Your task to perform on an android device: Open Youtube and go to "Your channel" Image 0: 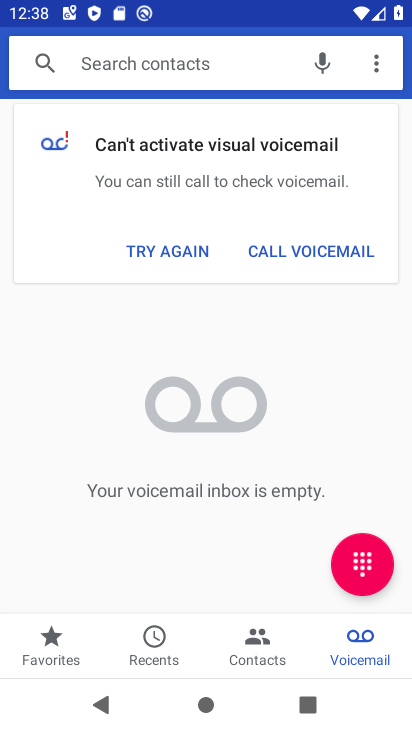
Step 0: press home button
Your task to perform on an android device: Open Youtube and go to "Your channel" Image 1: 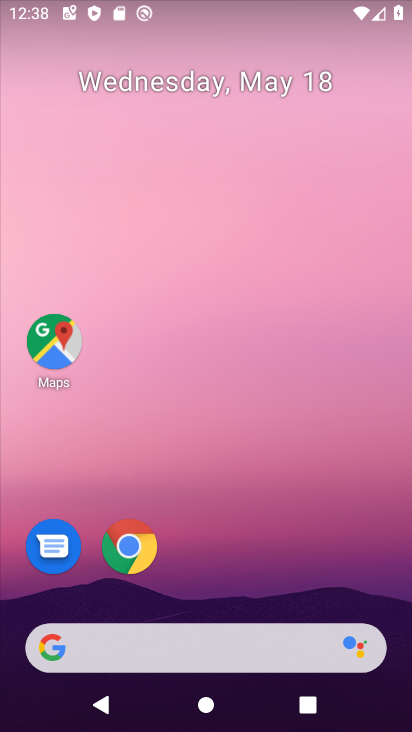
Step 1: drag from (297, 592) to (324, 149)
Your task to perform on an android device: Open Youtube and go to "Your channel" Image 2: 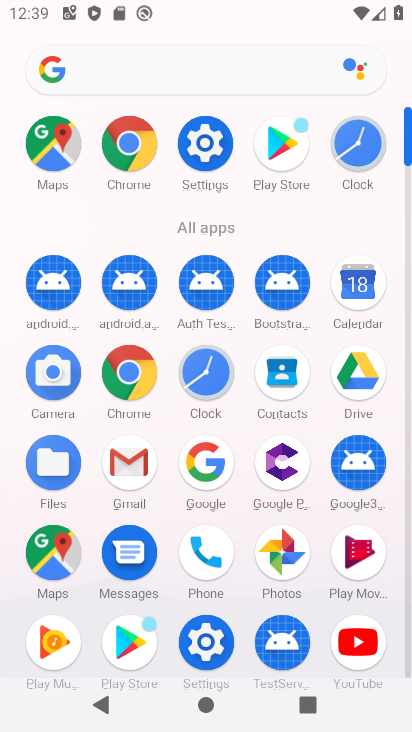
Step 2: click (377, 631)
Your task to perform on an android device: Open Youtube and go to "Your channel" Image 3: 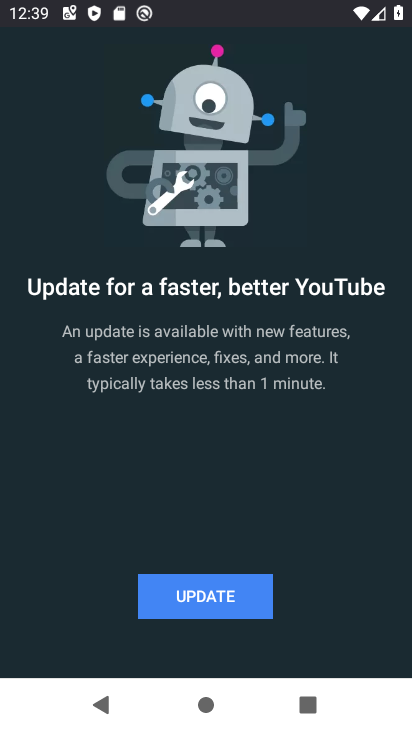
Step 3: click (265, 615)
Your task to perform on an android device: Open Youtube and go to "Your channel" Image 4: 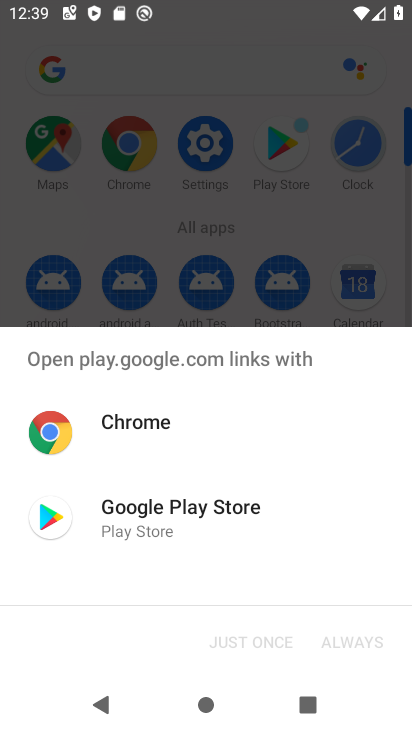
Step 4: click (103, 550)
Your task to perform on an android device: Open Youtube and go to "Your channel" Image 5: 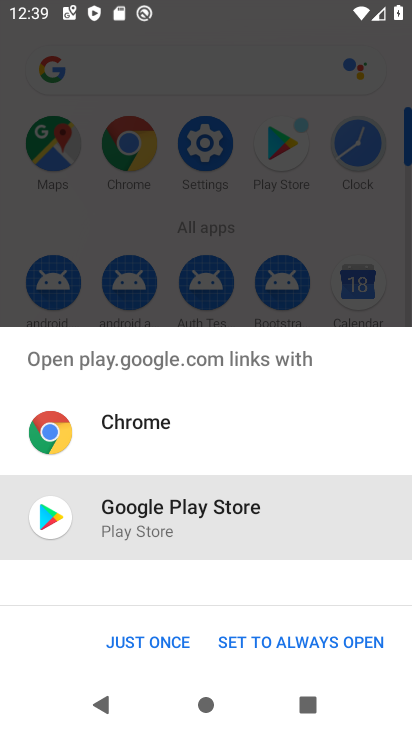
Step 5: click (175, 642)
Your task to perform on an android device: Open Youtube and go to "Your channel" Image 6: 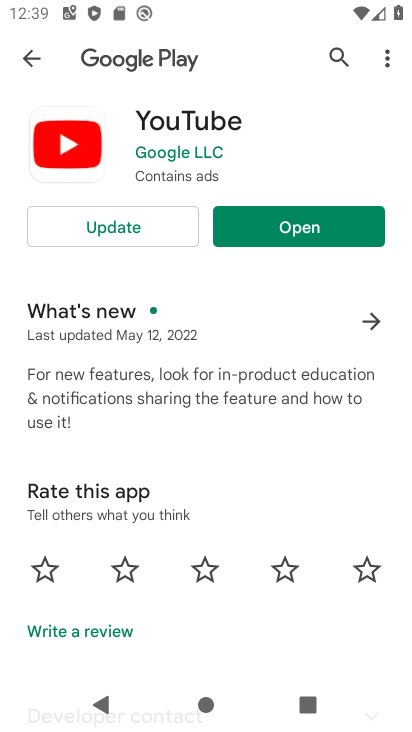
Step 6: click (116, 231)
Your task to perform on an android device: Open Youtube and go to "Your channel" Image 7: 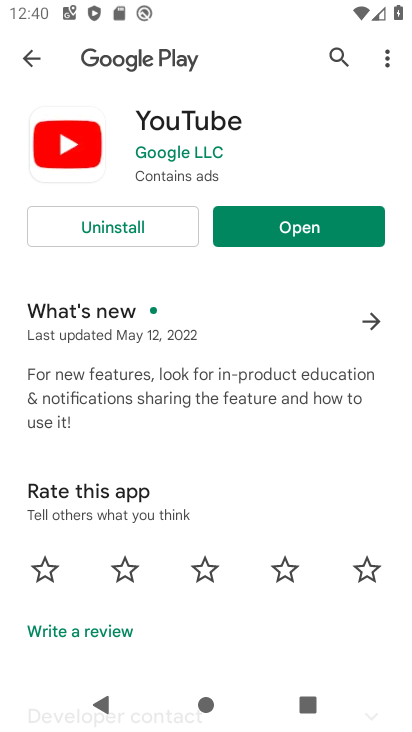
Step 7: click (294, 222)
Your task to perform on an android device: Open Youtube and go to "Your channel" Image 8: 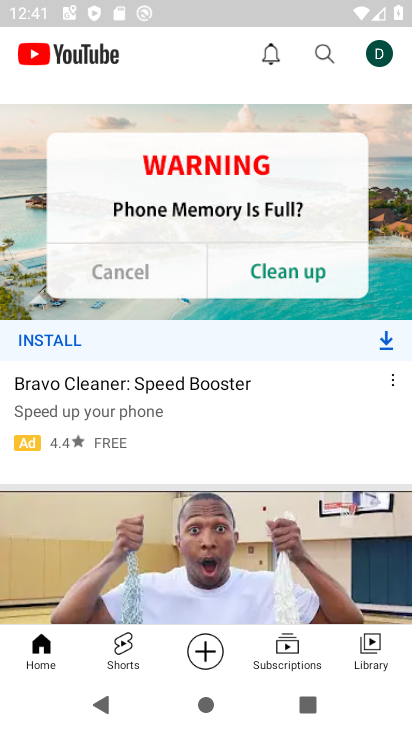
Step 8: click (377, 47)
Your task to perform on an android device: Open Youtube and go to "Your channel" Image 9: 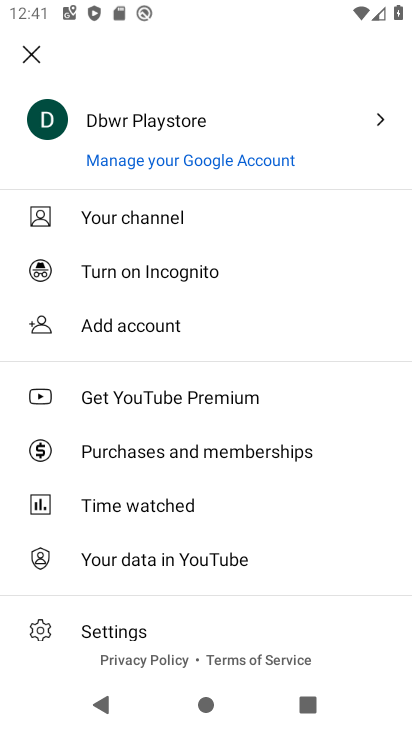
Step 9: click (165, 220)
Your task to perform on an android device: Open Youtube and go to "Your channel" Image 10: 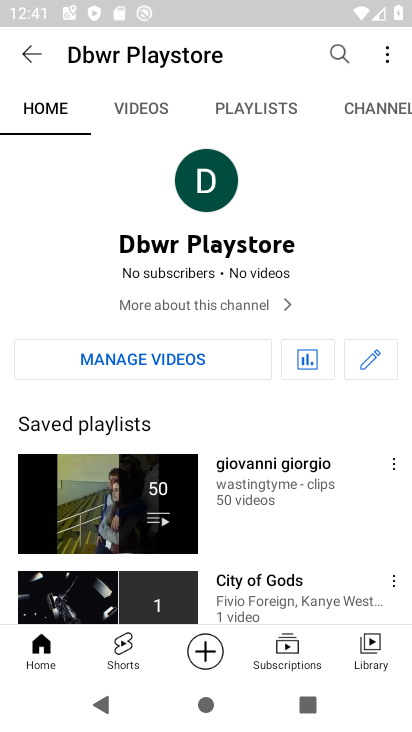
Step 10: task complete